Your task to perform on an android device: Go to Reddit.com Image 0: 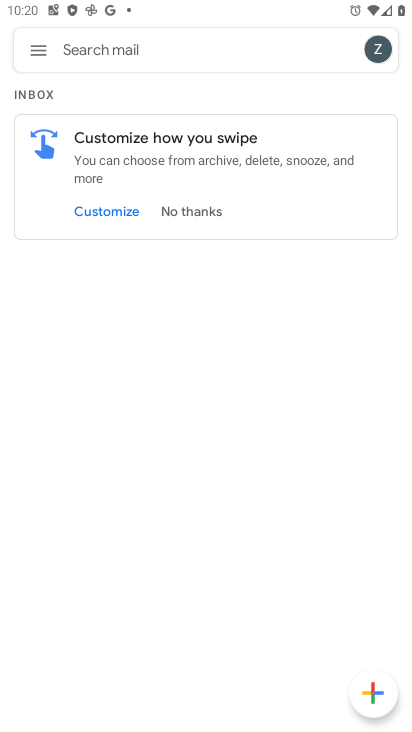
Step 0: press home button
Your task to perform on an android device: Go to Reddit.com Image 1: 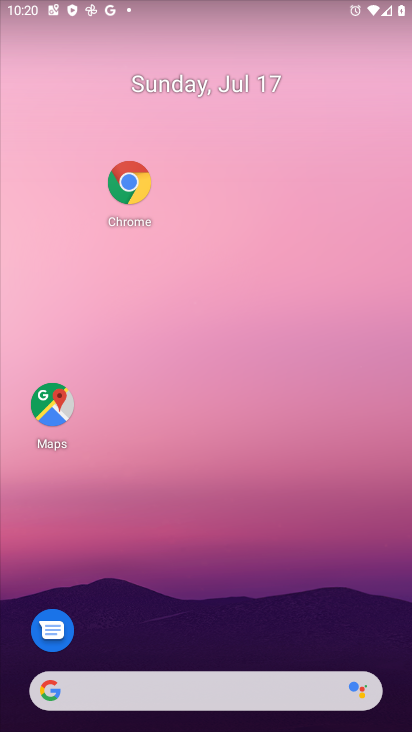
Step 1: click (125, 185)
Your task to perform on an android device: Go to Reddit.com Image 2: 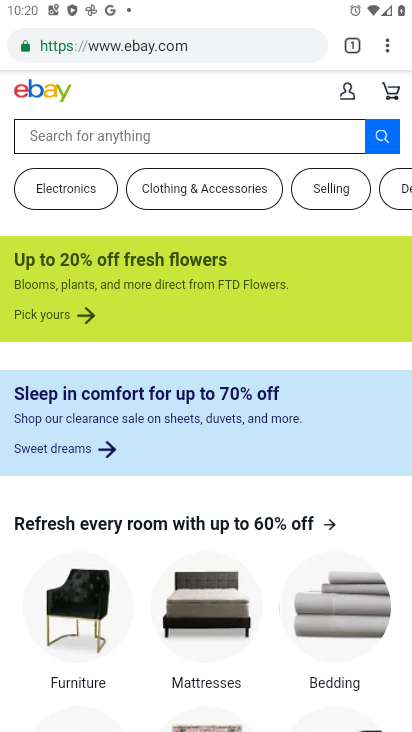
Step 2: click (100, 35)
Your task to perform on an android device: Go to Reddit.com Image 3: 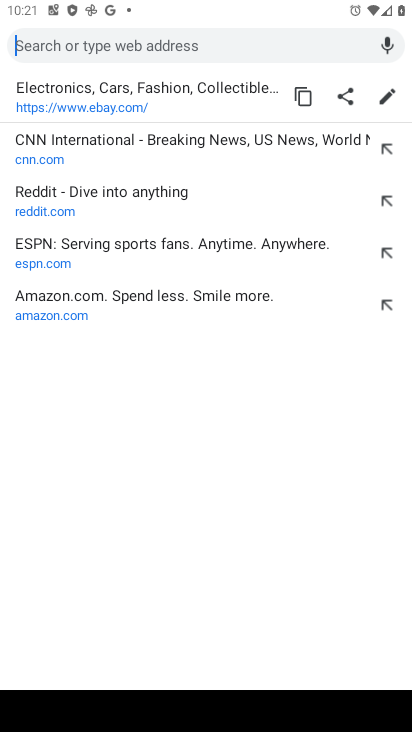
Step 3: type "www.reddit.com"
Your task to perform on an android device: Go to Reddit.com Image 4: 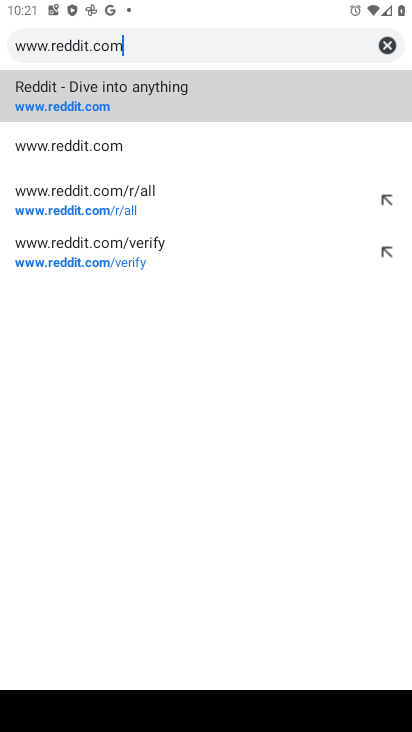
Step 4: click (85, 101)
Your task to perform on an android device: Go to Reddit.com Image 5: 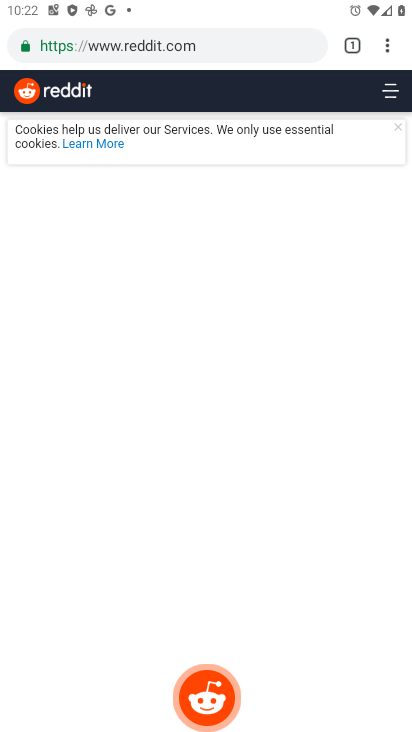
Step 5: task complete